Your task to perform on an android device: delete location history Image 0: 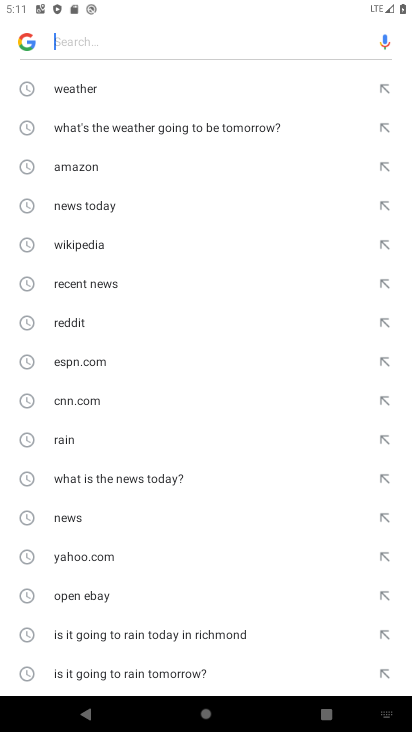
Step 0: press home button
Your task to perform on an android device: delete location history Image 1: 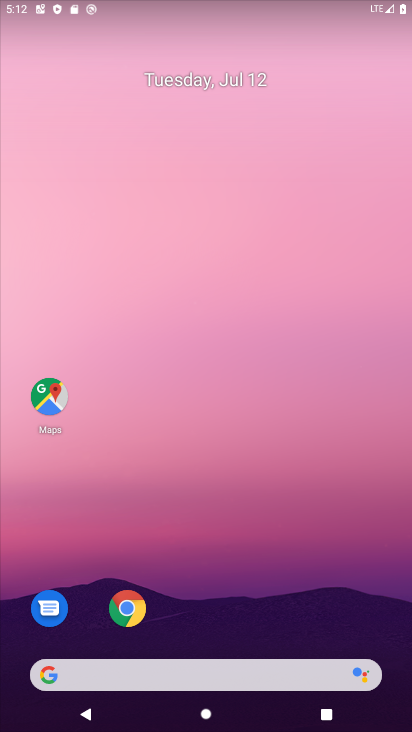
Step 1: click (58, 382)
Your task to perform on an android device: delete location history Image 2: 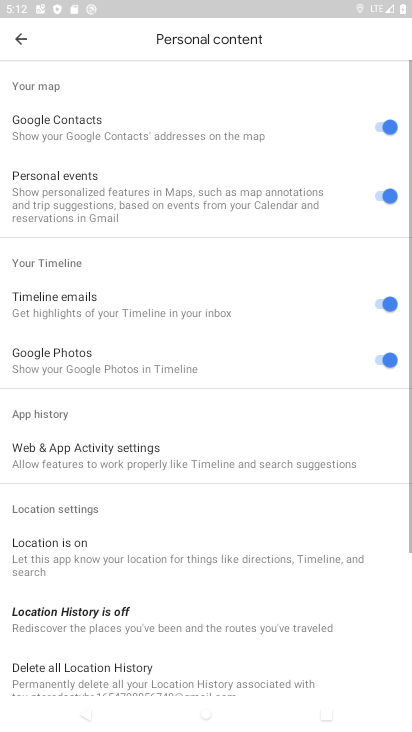
Step 2: click (27, 42)
Your task to perform on an android device: delete location history Image 3: 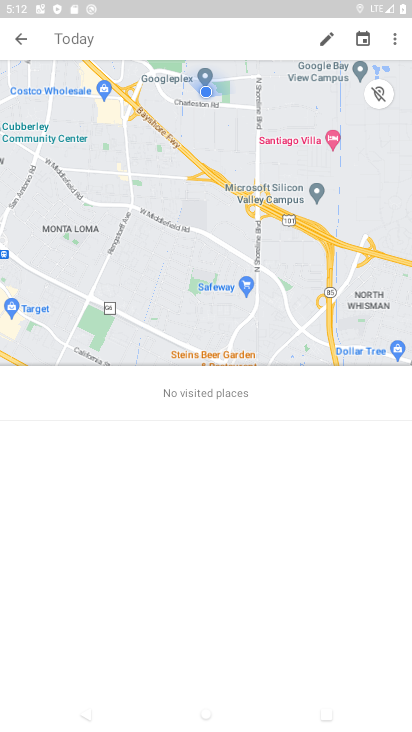
Step 3: click (394, 51)
Your task to perform on an android device: delete location history Image 4: 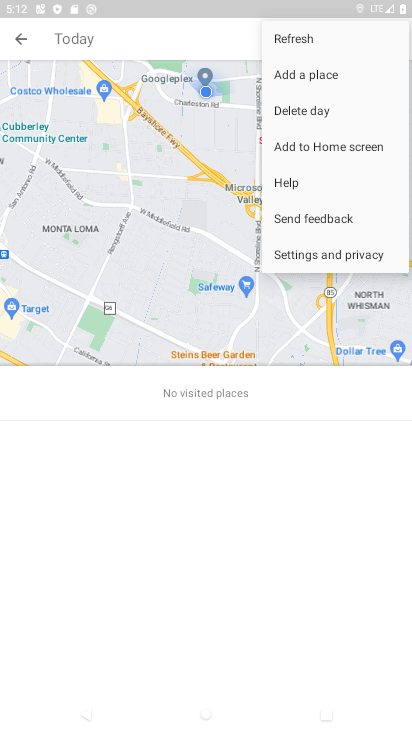
Step 4: click (313, 262)
Your task to perform on an android device: delete location history Image 5: 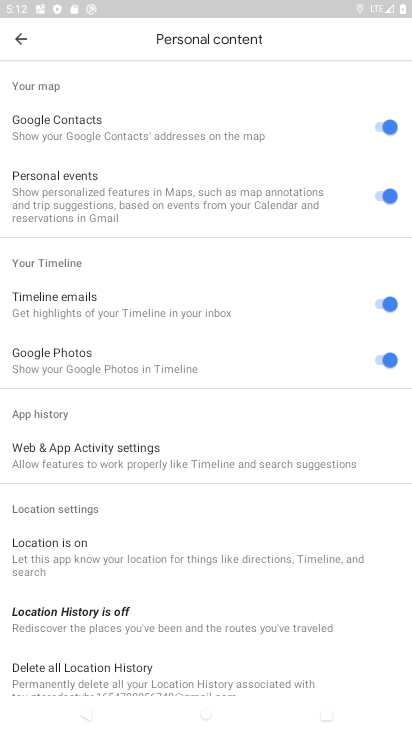
Step 5: click (161, 667)
Your task to perform on an android device: delete location history Image 6: 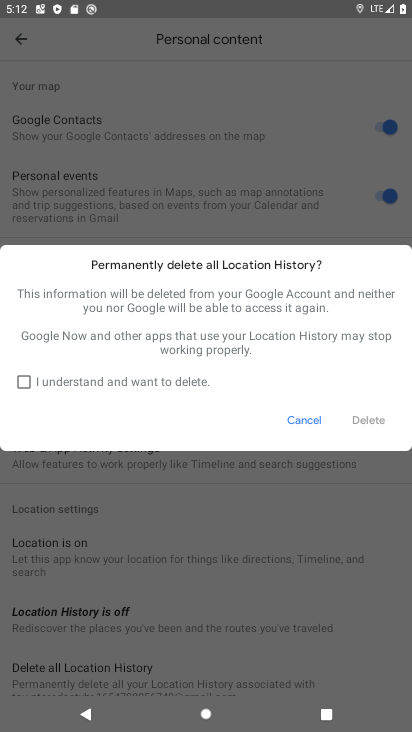
Step 6: click (23, 379)
Your task to perform on an android device: delete location history Image 7: 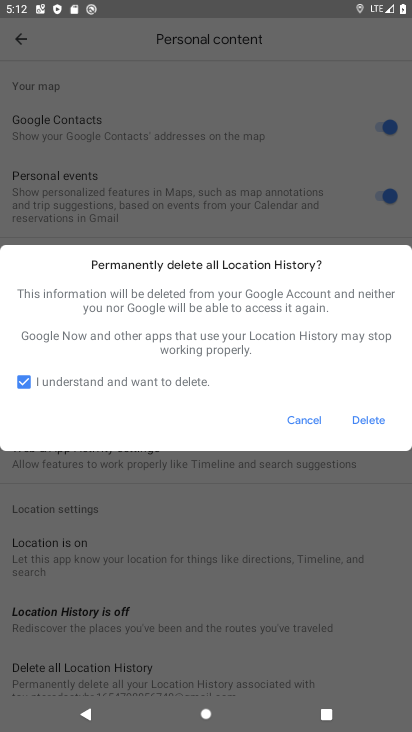
Step 7: click (383, 415)
Your task to perform on an android device: delete location history Image 8: 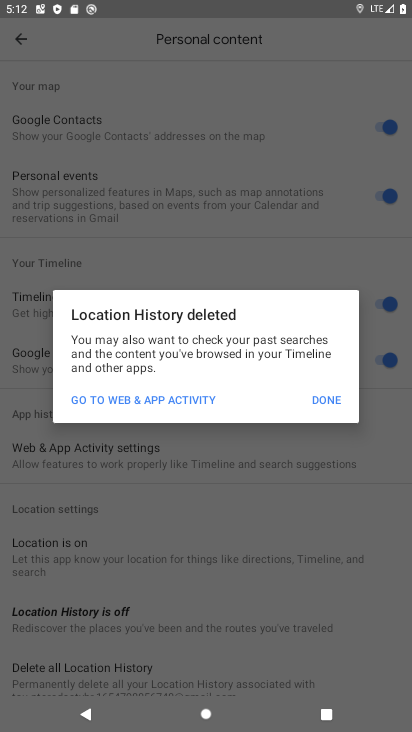
Step 8: click (337, 398)
Your task to perform on an android device: delete location history Image 9: 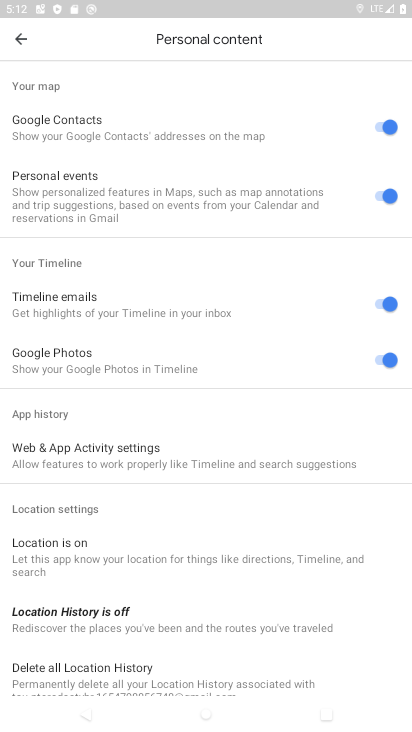
Step 9: task complete